Your task to perform on an android device: check google app version Image 0: 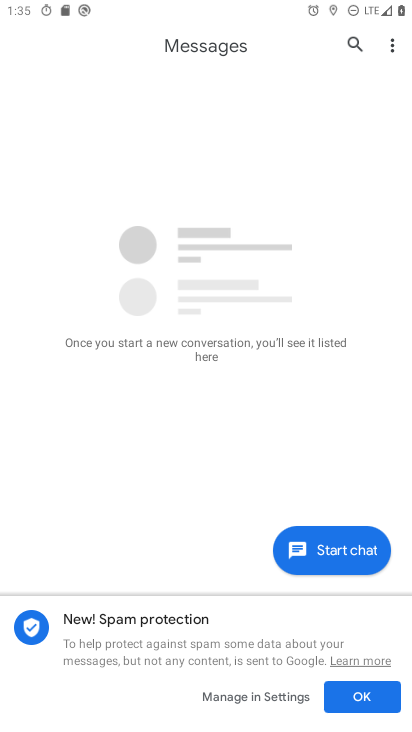
Step 0: press home button
Your task to perform on an android device: check google app version Image 1: 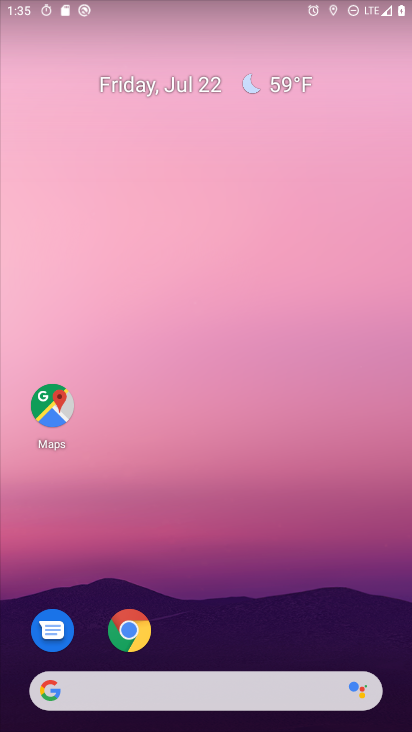
Step 1: drag from (194, 626) to (187, 181)
Your task to perform on an android device: check google app version Image 2: 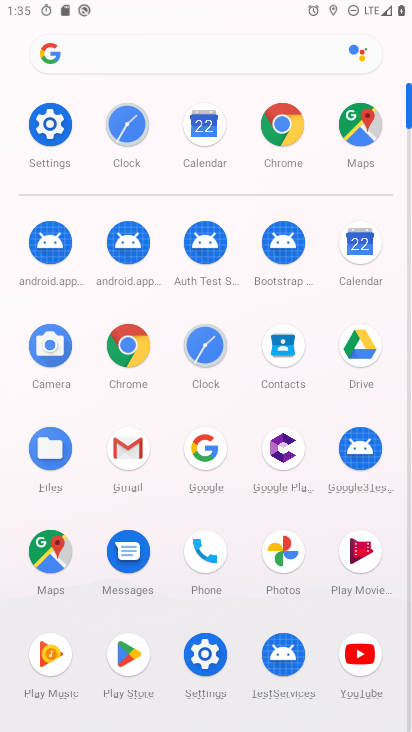
Step 2: click (205, 448)
Your task to perform on an android device: check google app version Image 3: 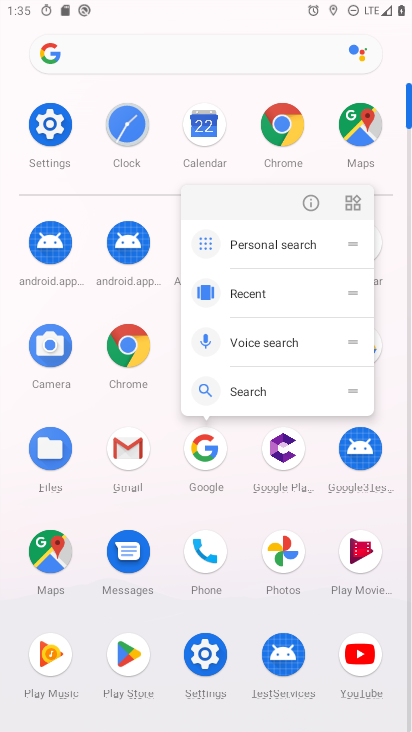
Step 3: click (318, 207)
Your task to perform on an android device: check google app version Image 4: 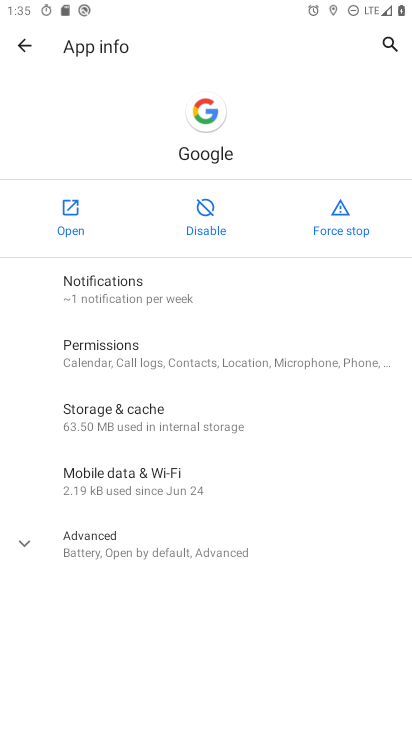
Step 4: click (82, 543)
Your task to perform on an android device: check google app version Image 5: 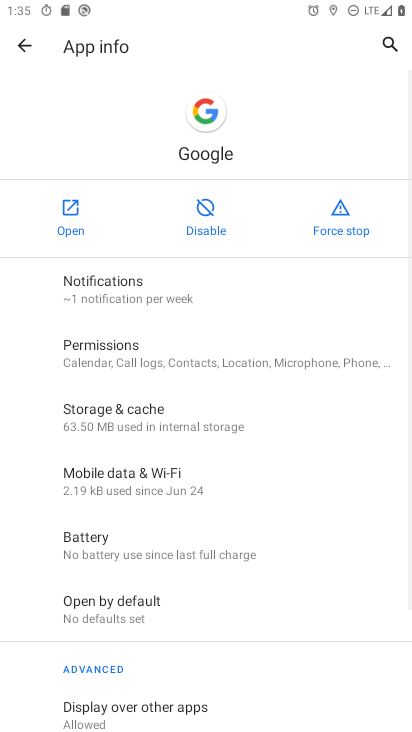
Step 5: task complete